Your task to perform on an android device: turn vacation reply on in the gmail app Image 0: 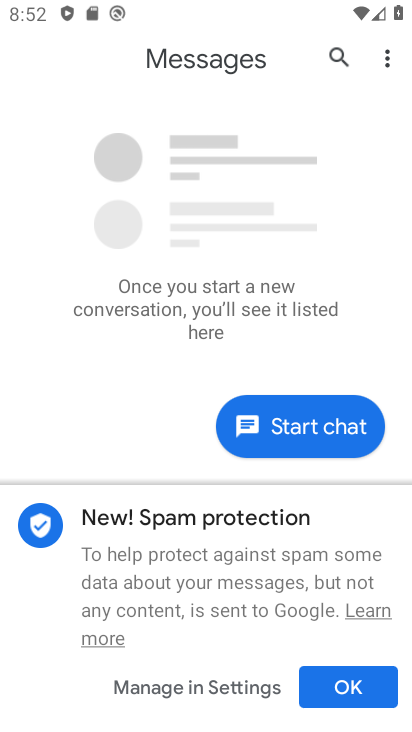
Step 0: press back button
Your task to perform on an android device: turn vacation reply on in the gmail app Image 1: 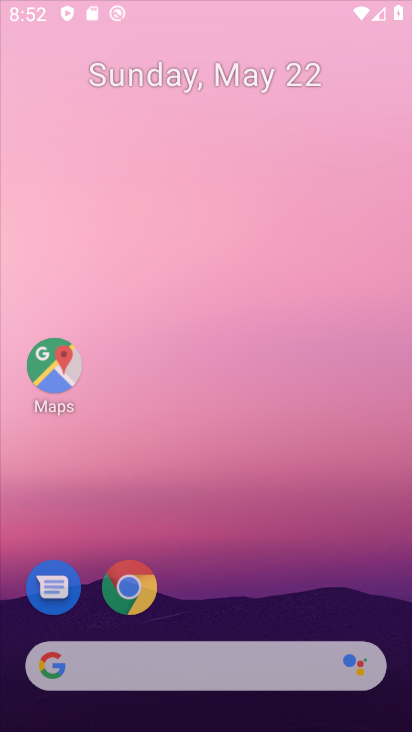
Step 1: press back button
Your task to perform on an android device: turn vacation reply on in the gmail app Image 2: 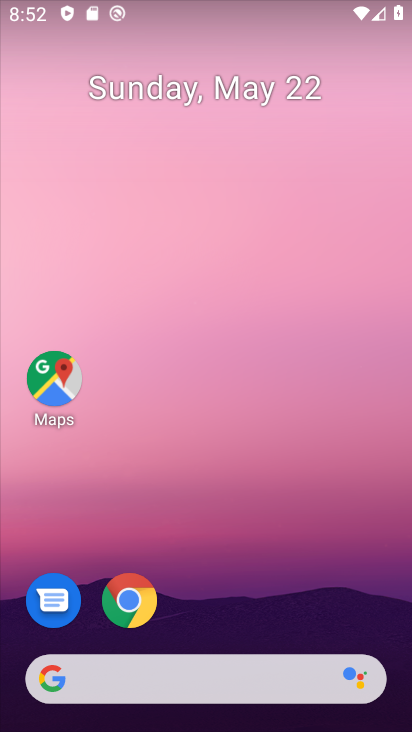
Step 2: drag from (288, 594) to (227, 34)
Your task to perform on an android device: turn vacation reply on in the gmail app Image 3: 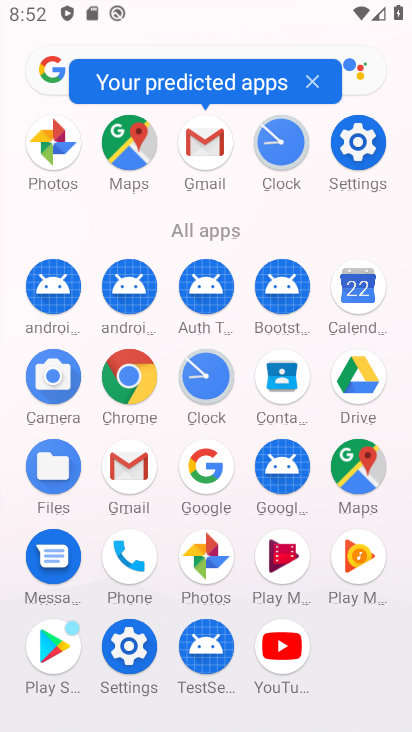
Step 3: click (204, 141)
Your task to perform on an android device: turn vacation reply on in the gmail app Image 4: 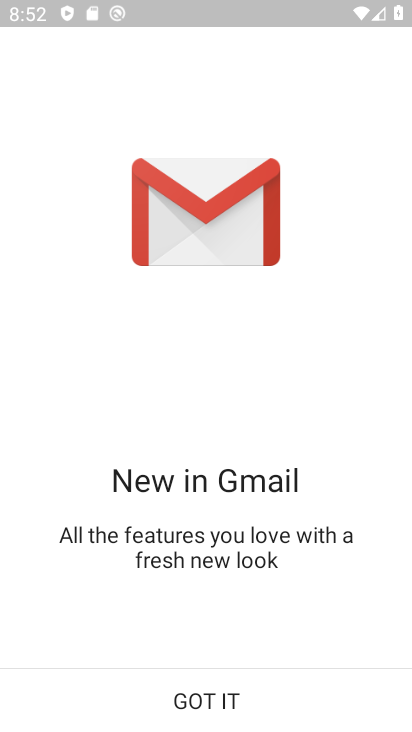
Step 4: click (207, 701)
Your task to perform on an android device: turn vacation reply on in the gmail app Image 5: 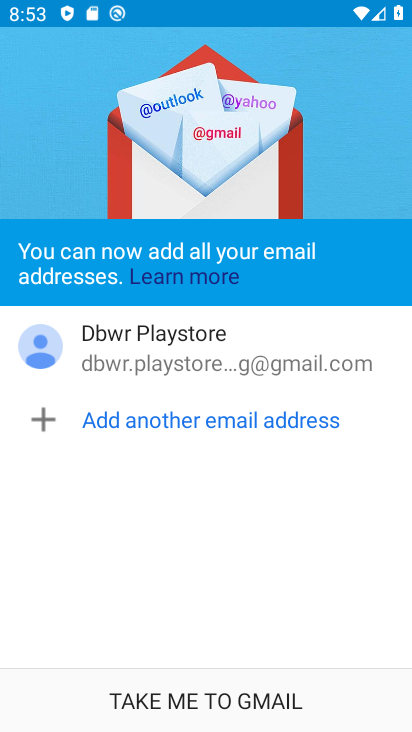
Step 5: click (207, 701)
Your task to perform on an android device: turn vacation reply on in the gmail app Image 6: 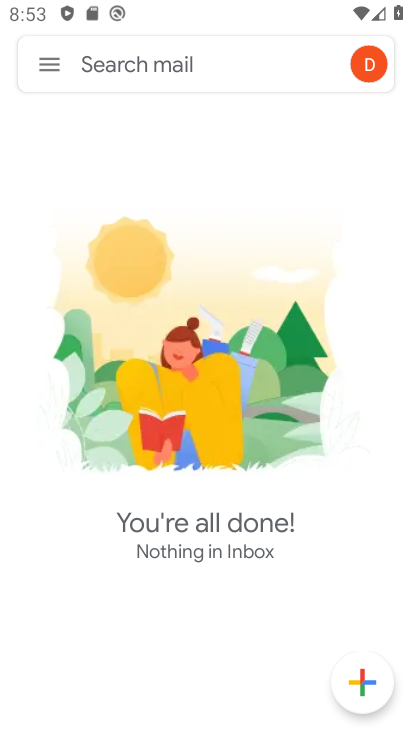
Step 6: click (55, 67)
Your task to perform on an android device: turn vacation reply on in the gmail app Image 7: 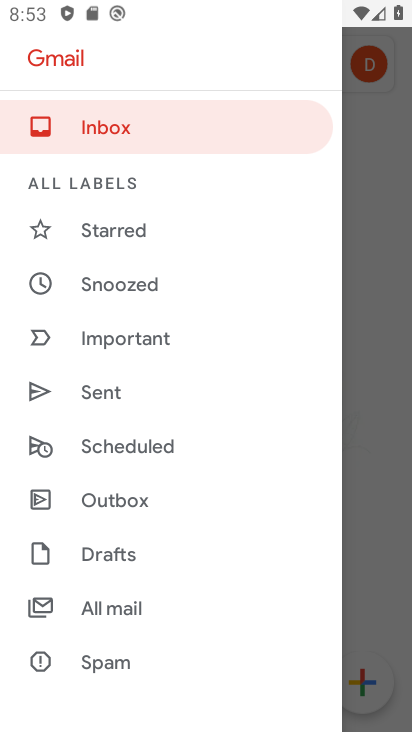
Step 7: drag from (142, 416) to (194, 323)
Your task to perform on an android device: turn vacation reply on in the gmail app Image 8: 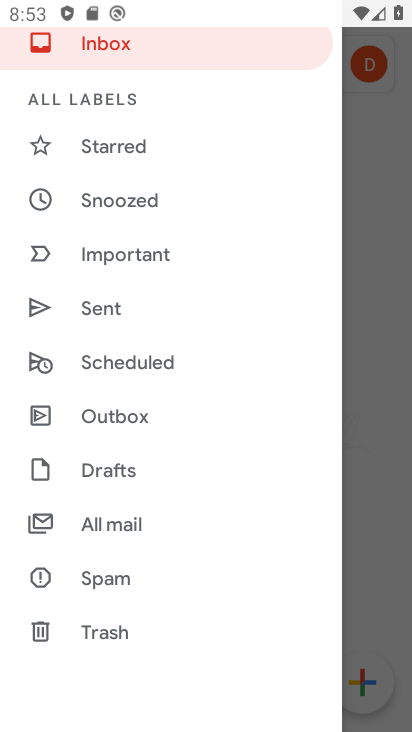
Step 8: drag from (110, 493) to (135, 395)
Your task to perform on an android device: turn vacation reply on in the gmail app Image 9: 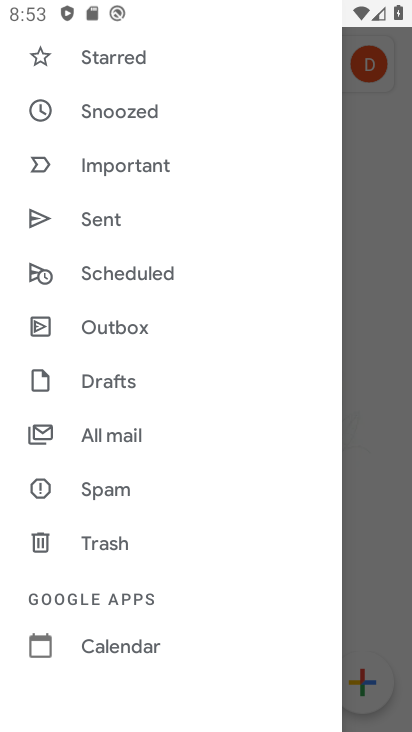
Step 9: drag from (111, 512) to (136, 422)
Your task to perform on an android device: turn vacation reply on in the gmail app Image 10: 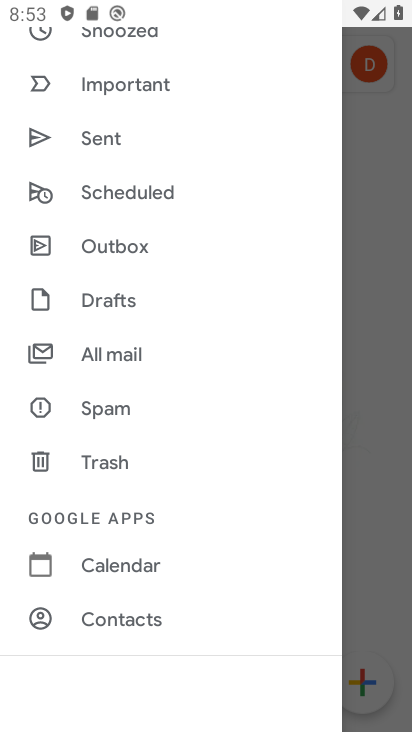
Step 10: drag from (113, 535) to (121, 452)
Your task to perform on an android device: turn vacation reply on in the gmail app Image 11: 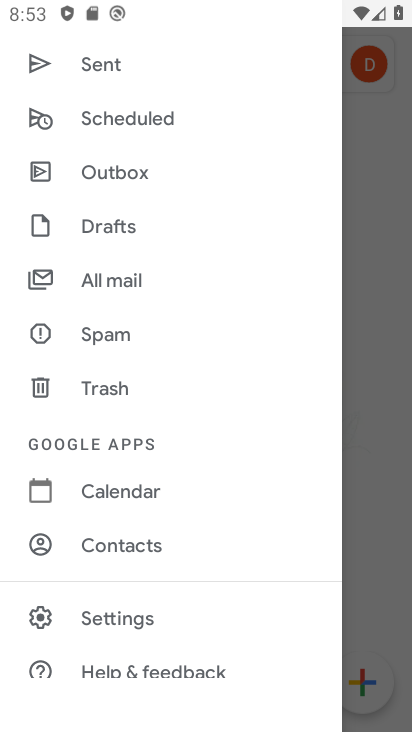
Step 11: click (139, 616)
Your task to perform on an android device: turn vacation reply on in the gmail app Image 12: 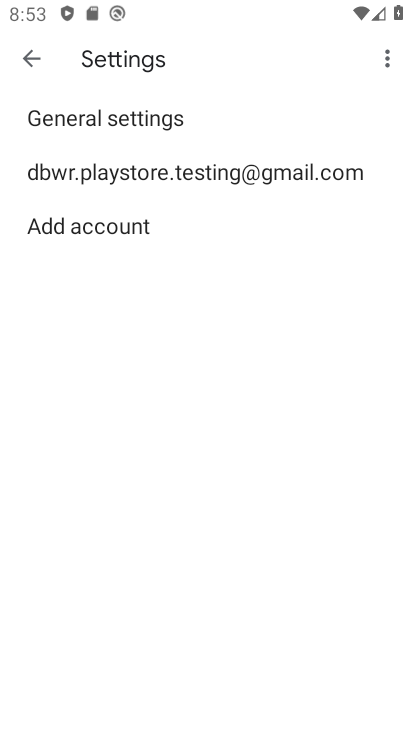
Step 12: click (135, 170)
Your task to perform on an android device: turn vacation reply on in the gmail app Image 13: 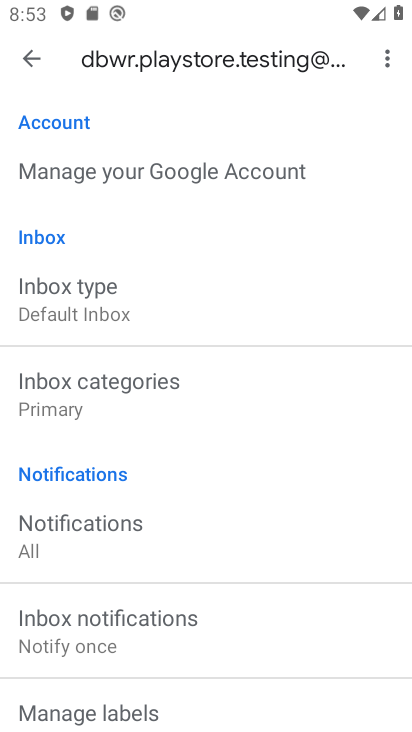
Step 13: drag from (159, 488) to (221, 382)
Your task to perform on an android device: turn vacation reply on in the gmail app Image 14: 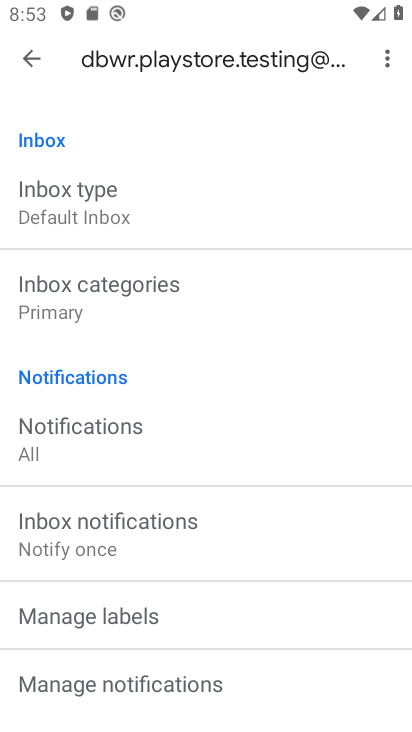
Step 14: drag from (163, 533) to (205, 451)
Your task to perform on an android device: turn vacation reply on in the gmail app Image 15: 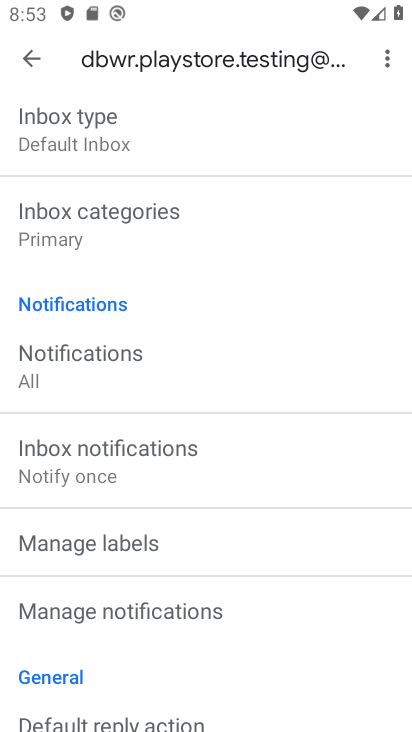
Step 15: drag from (185, 552) to (218, 461)
Your task to perform on an android device: turn vacation reply on in the gmail app Image 16: 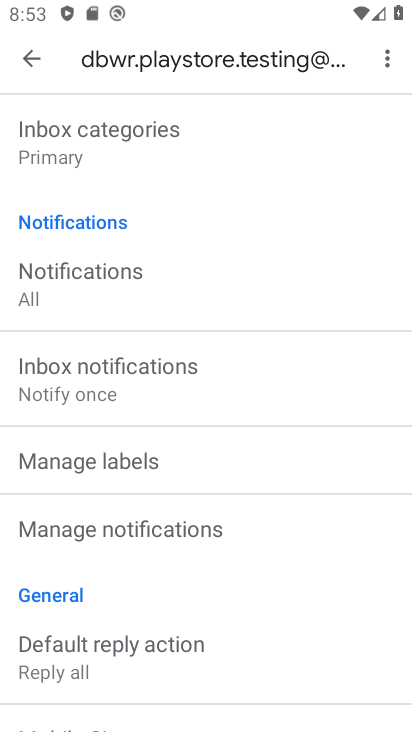
Step 16: drag from (178, 585) to (212, 503)
Your task to perform on an android device: turn vacation reply on in the gmail app Image 17: 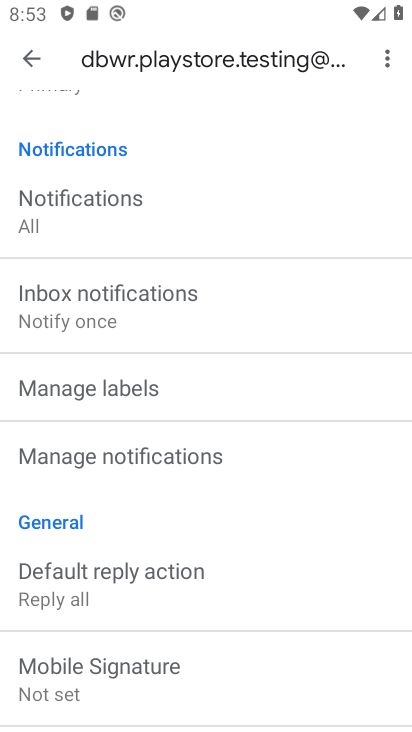
Step 17: drag from (163, 674) to (208, 576)
Your task to perform on an android device: turn vacation reply on in the gmail app Image 18: 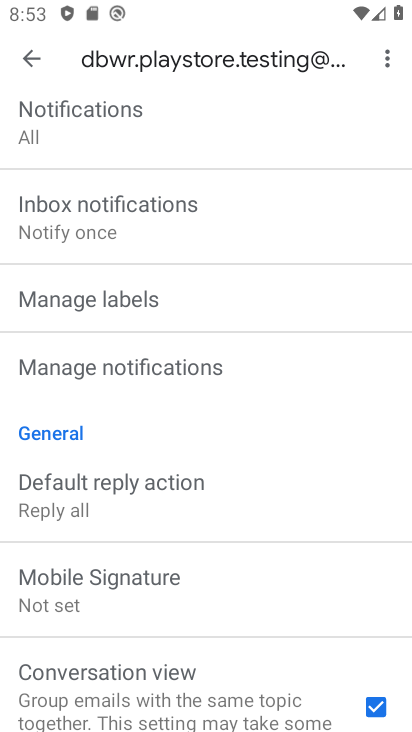
Step 18: drag from (134, 670) to (189, 588)
Your task to perform on an android device: turn vacation reply on in the gmail app Image 19: 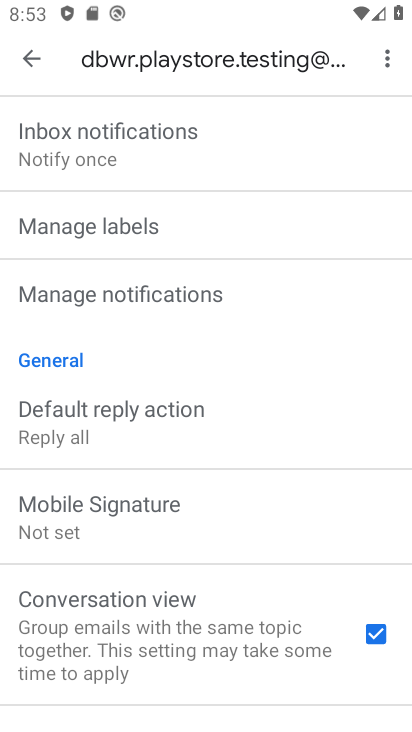
Step 19: drag from (144, 671) to (172, 554)
Your task to perform on an android device: turn vacation reply on in the gmail app Image 20: 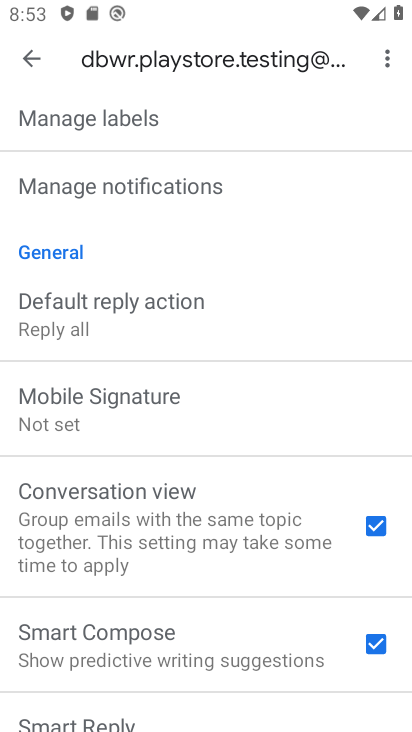
Step 20: drag from (133, 640) to (167, 524)
Your task to perform on an android device: turn vacation reply on in the gmail app Image 21: 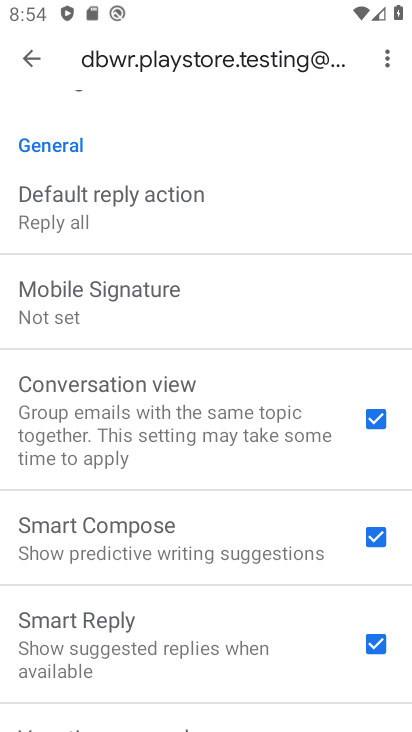
Step 21: drag from (144, 650) to (207, 541)
Your task to perform on an android device: turn vacation reply on in the gmail app Image 22: 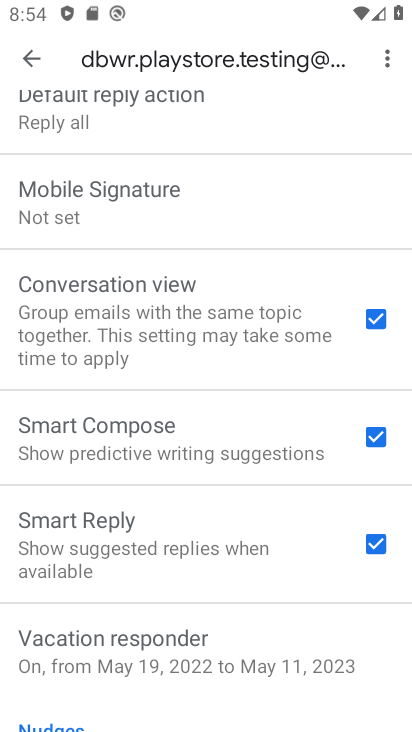
Step 22: click (146, 674)
Your task to perform on an android device: turn vacation reply on in the gmail app Image 23: 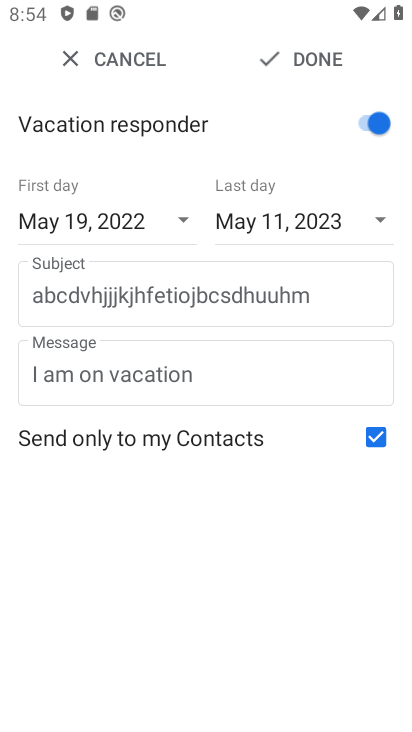
Step 23: task complete